Your task to perform on an android device: What's the news in Brunei? Image 0: 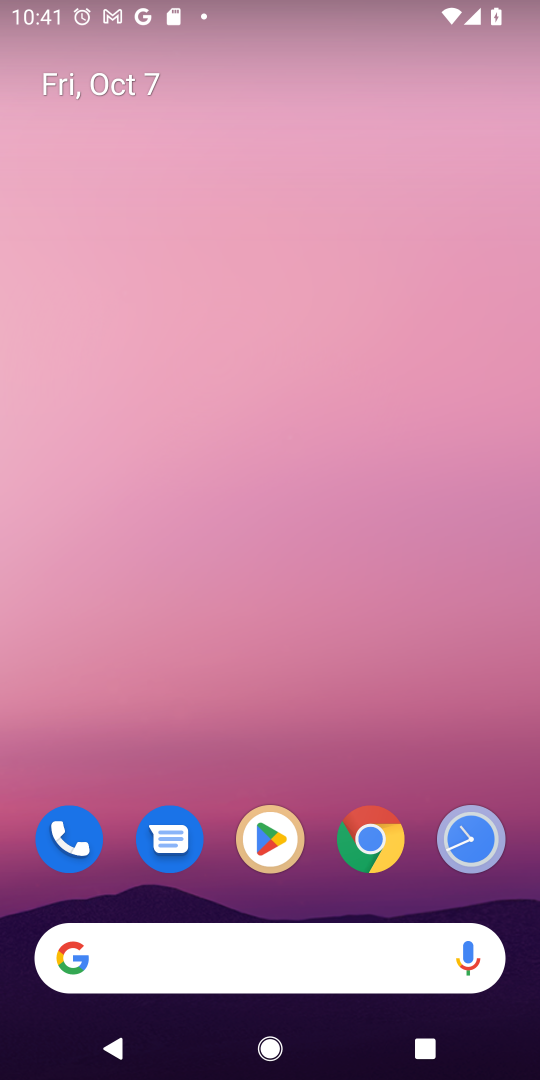
Step 0: click (354, 848)
Your task to perform on an android device: What's the news in Brunei? Image 1: 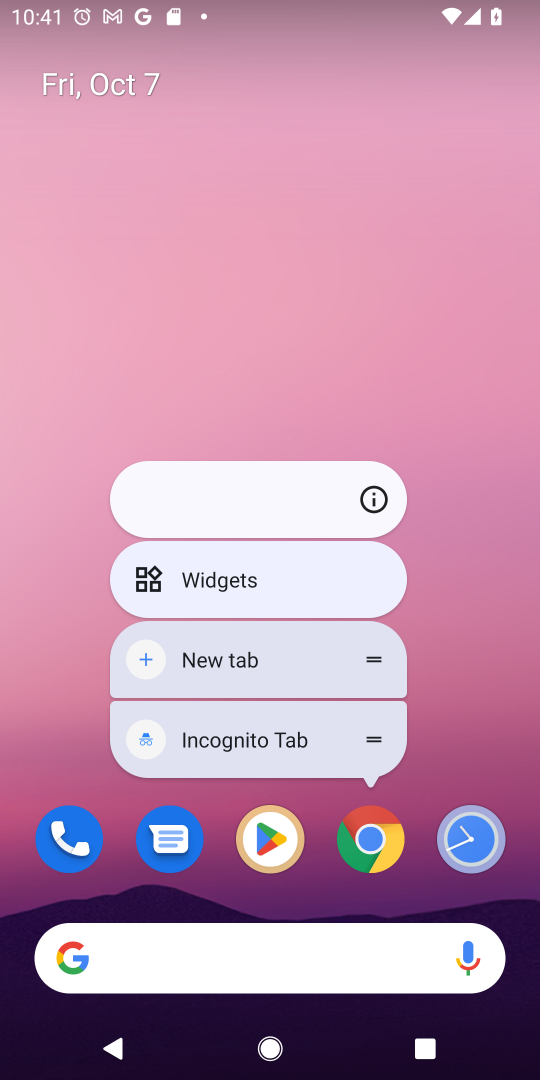
Step 1: click (381, 856)
Your task to perform on an android device: What's the news in Brunei? Image 2: 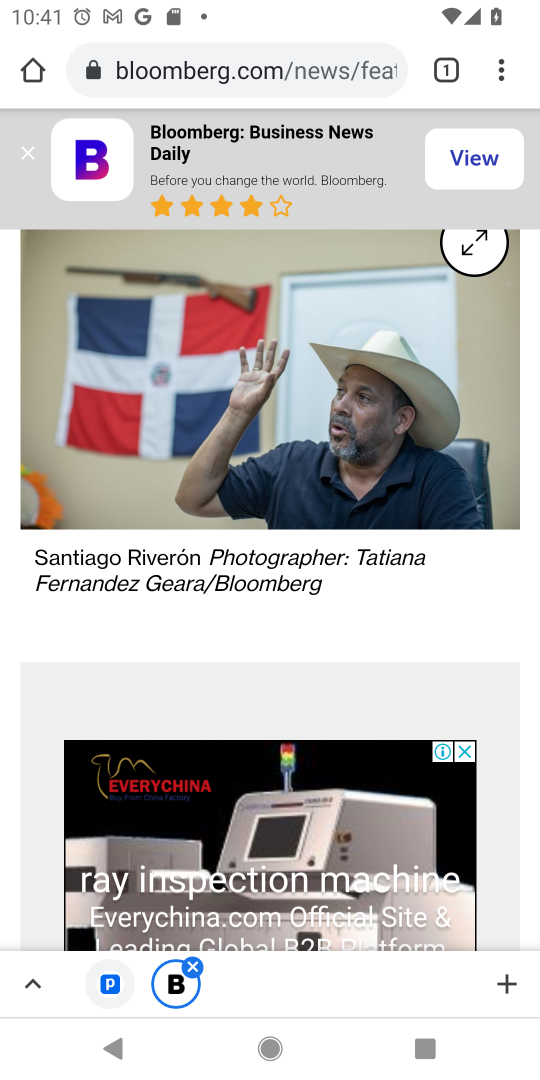
Step 2: click (284, 76)
Your task to perform on an android device: What's the news in Brunei? Image 3: 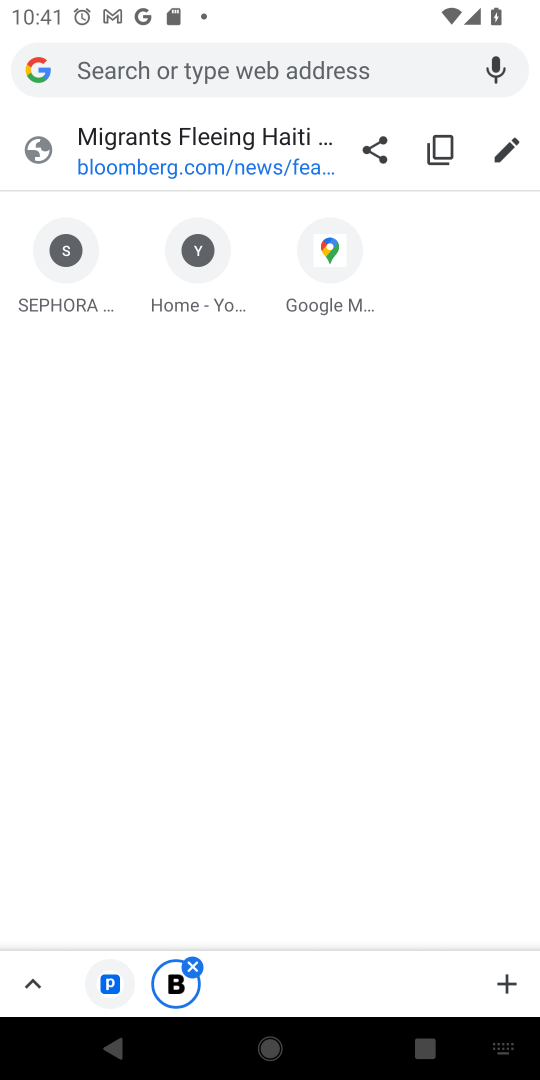
Step 3: type "news in brunei"
Your task to perform on an android device: What's the news in Brunei? Image 4: 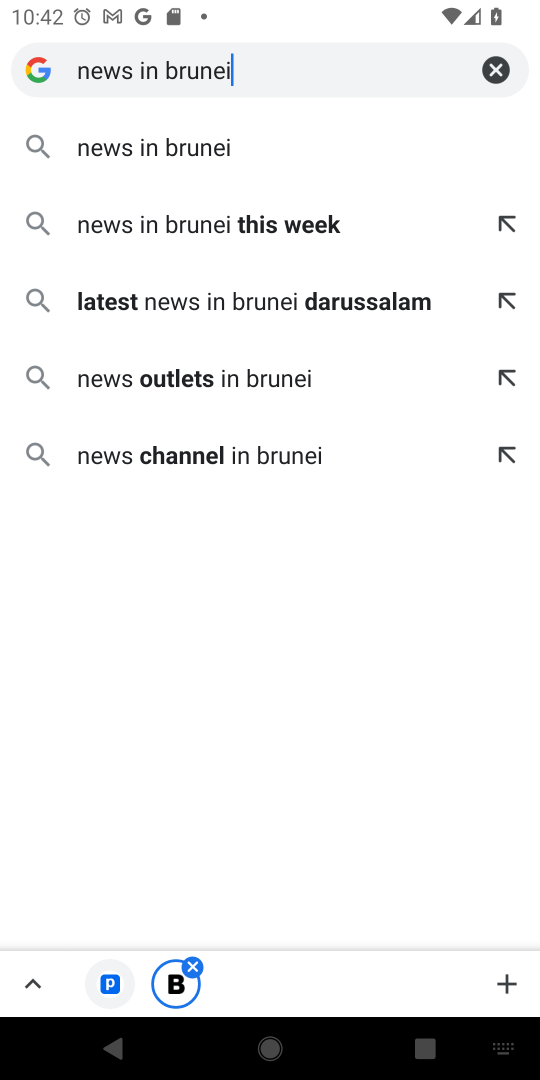
Step 4: click (216, 141)
Your task to perform on an android device: What's the news in Brunei? Image 5: 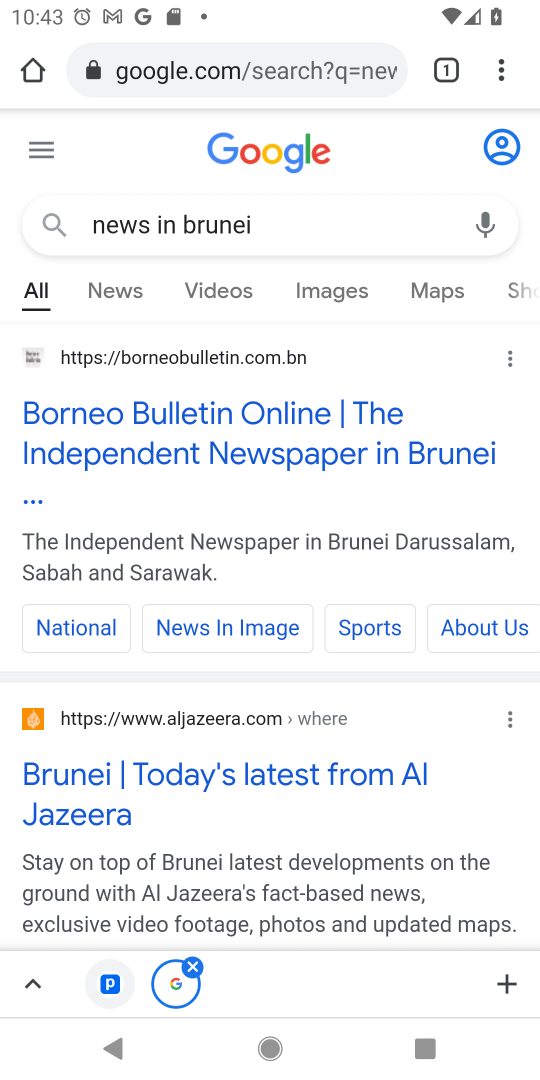
Step 5: drag from (144, 822) to (269, 332)
Your task to perform on an android device: What's the news in Brunei? Image 6: 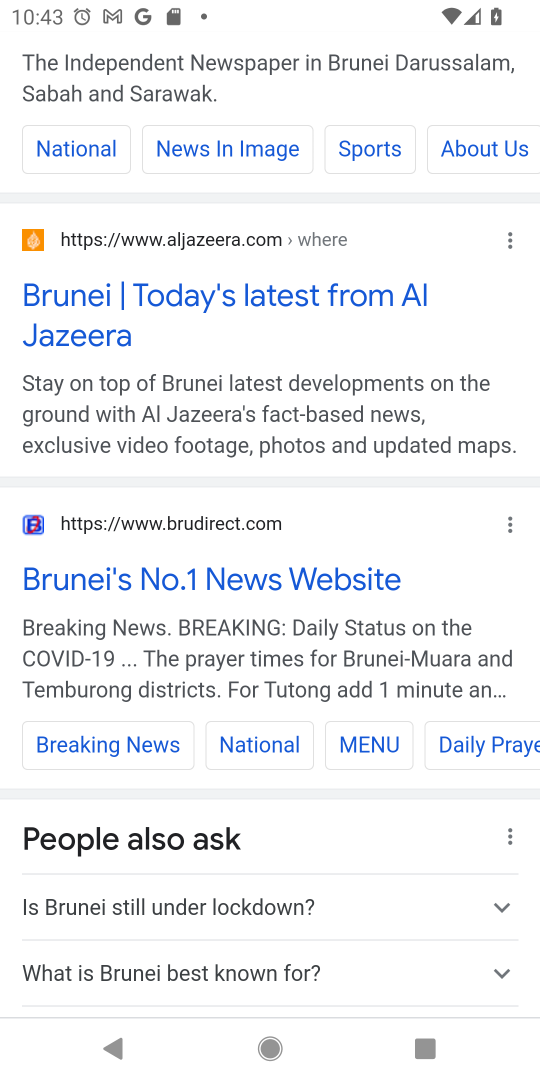
Step 6: click (100, 586)
Your task to perform on an android device: What's the news in Brunei? Image 7: 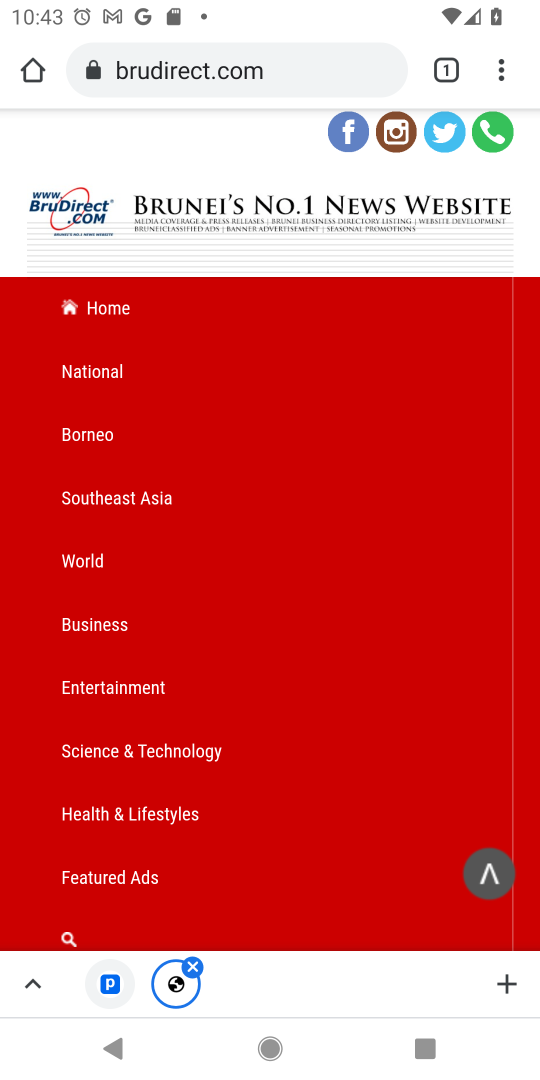
Step 7: task complete